Your task to perform on an android device: change alarm snooze length Image 0: 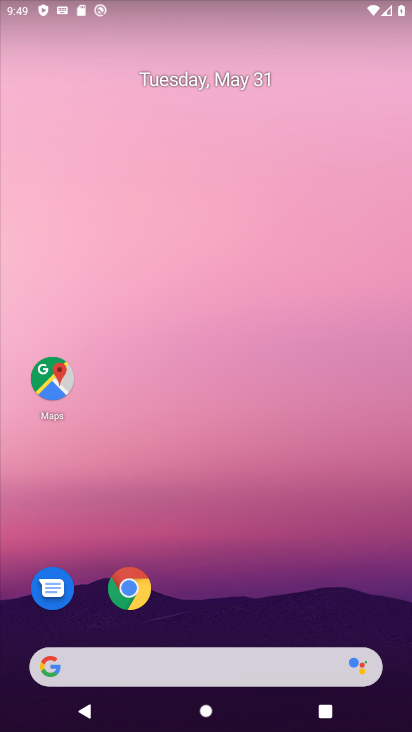
Step 0: drag from (241, 595) to (260, 10)
Your task to perform on an android device: change alarm snooze length Image 1: 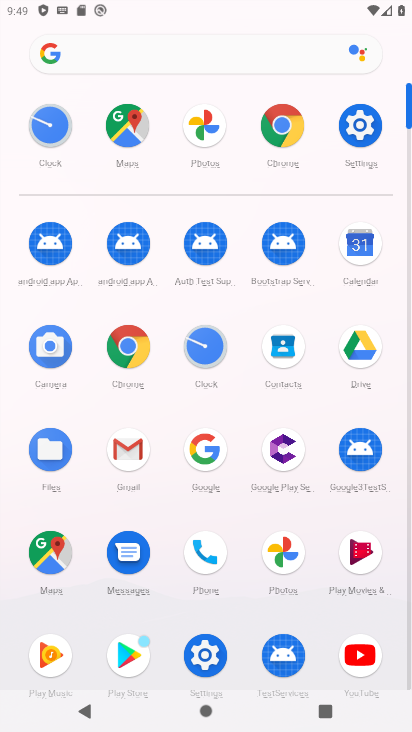
Step 1: click (48, 121)
Your task to perform on an android device: change alarm snooze length Image 2: 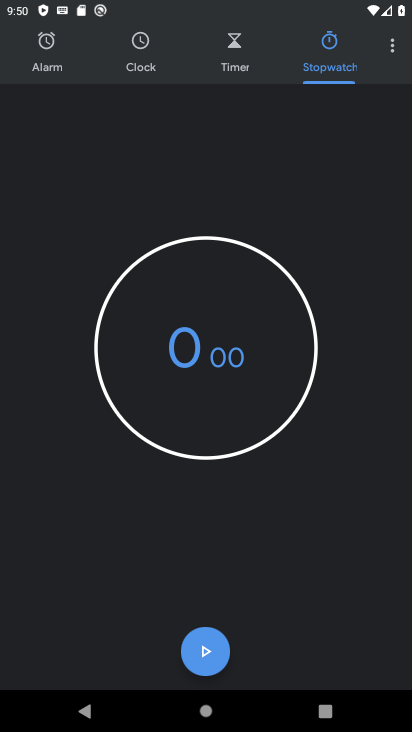
Step 2: click (397, 35)
Your task to perform on an android device: change alarm snooze length Image 3: 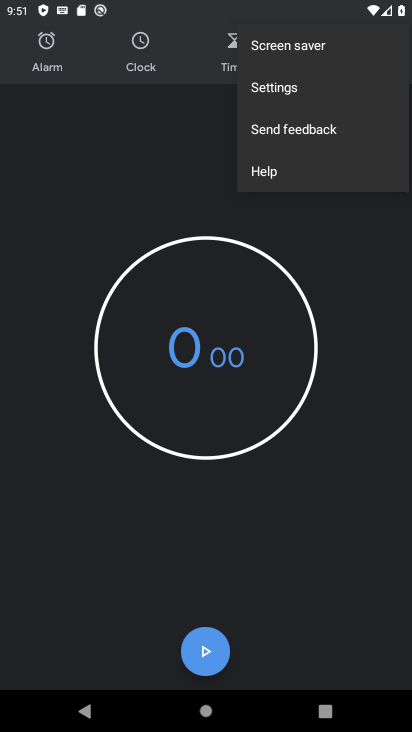
Step 3: click (293, 82)
Your task to perform on an android device: change alarm snooze length Image 4: 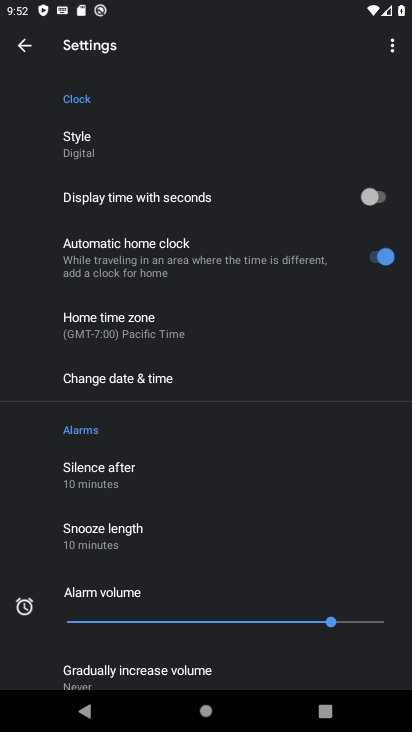
Step 4: click (106, 527)
Your task to perform on an android device: change alarm snooze length Image 5: 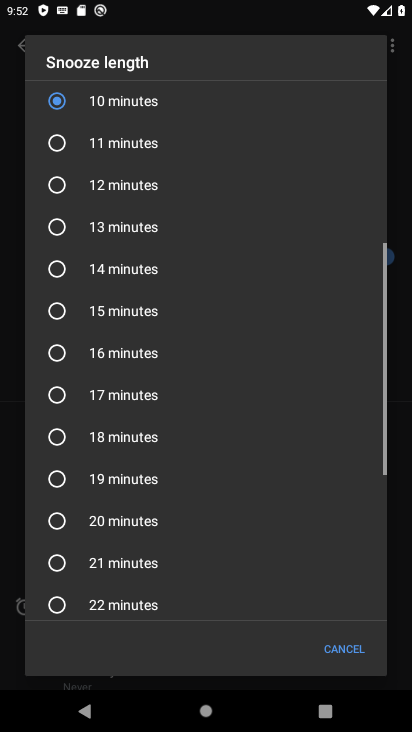
Step 5: click (100, 369)
Your task to perform on an android device: change alarm snooze length Image 6: 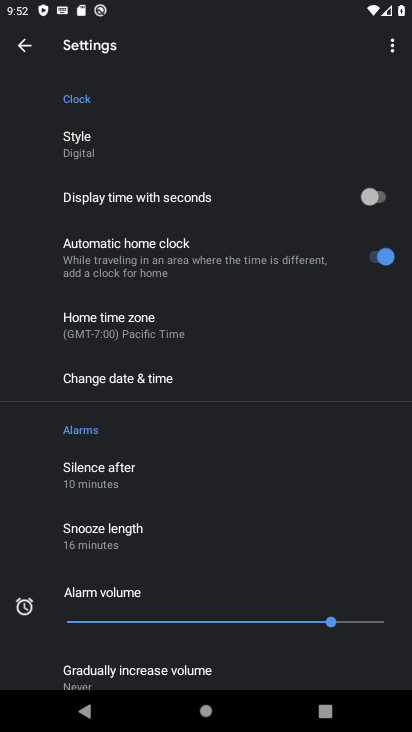
Step 6: task complete